Your task to perform on an android device: open a bookmark in the chrome app Image 0: 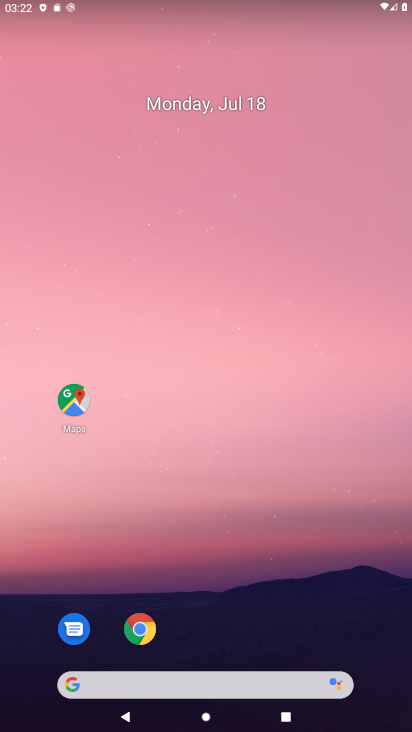
Step 0: click (128, 625)
Your task to perform on an android device: open a bookmark in the chrome app Image 1: 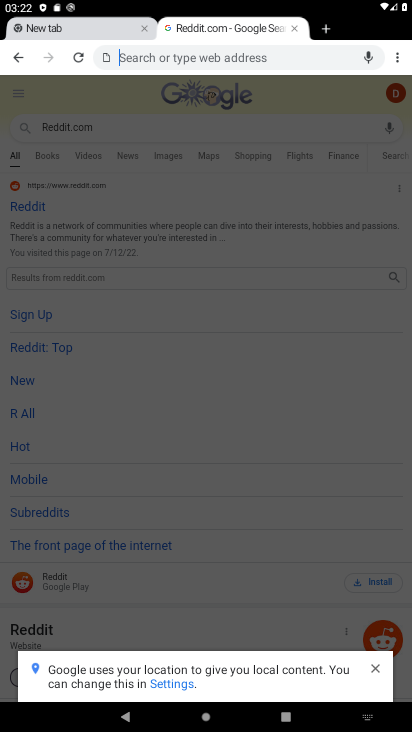
Step 1: click (394, 52)
Your task to perform on an android device: open a bookmark in the chrome app Image 2: 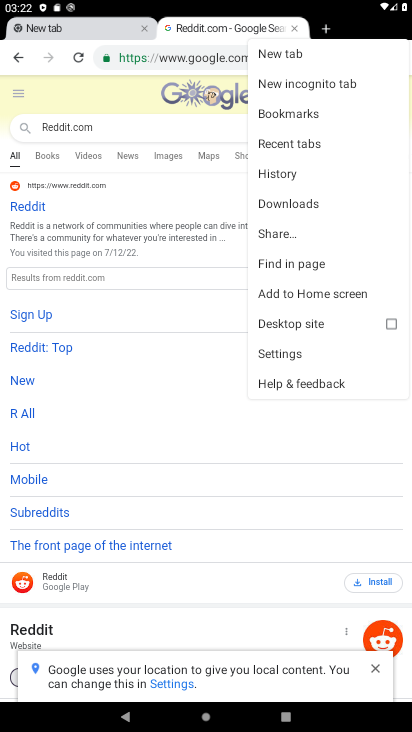
Step 2: click (288, 108)
Your task to perform on an android device: open a bookmark in the chrome app Image 3: 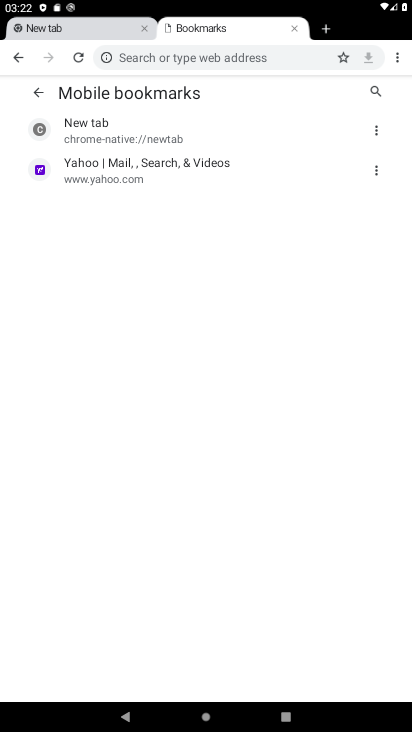
Step 3: task complete